Your task to perform on an android device: Search for pizza restaurants on Maps Image 0: 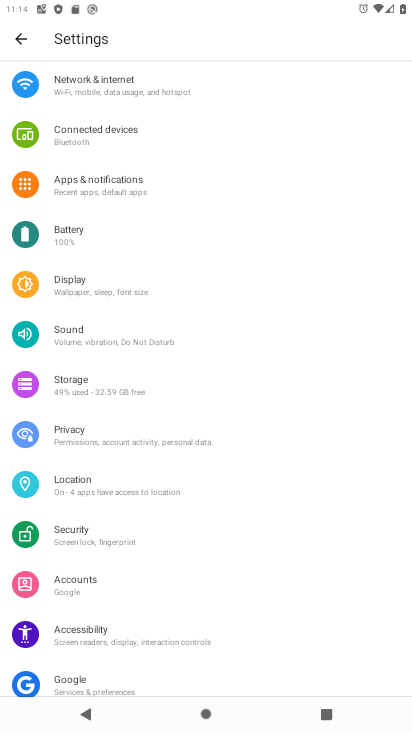
Step 0: press home button
Your task to perform on an android device: Search for pizza restaurants on Maps Image 1: 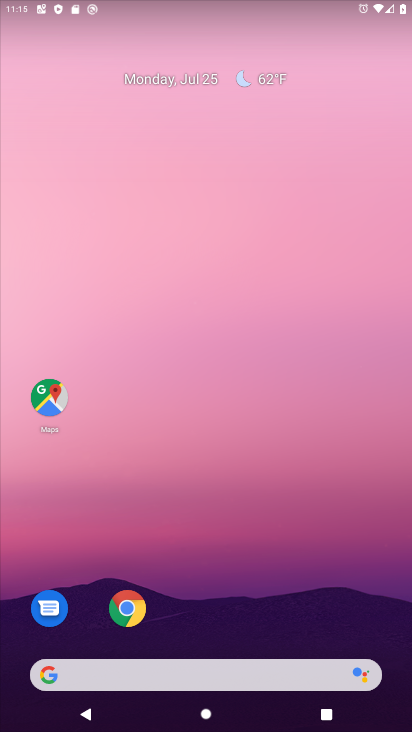
Step 1: click (48, 410)
Your task to perform on an android device: Search for pizza restaurants on Maps Image 2: 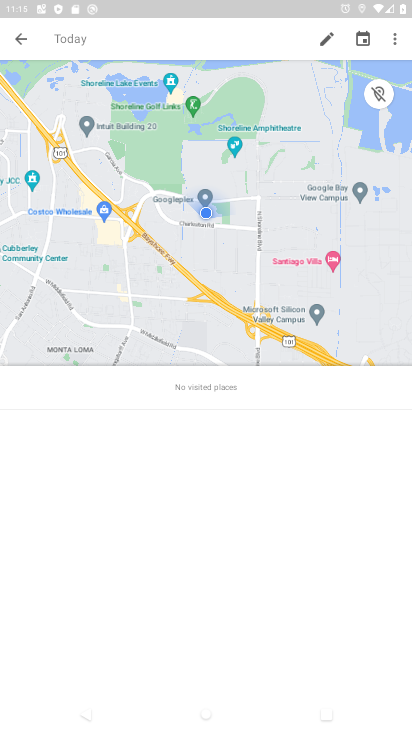
Step 2: click (16, 40)
Your task to perform on an android device: Search for pizza restaurants on Maps Image 3: 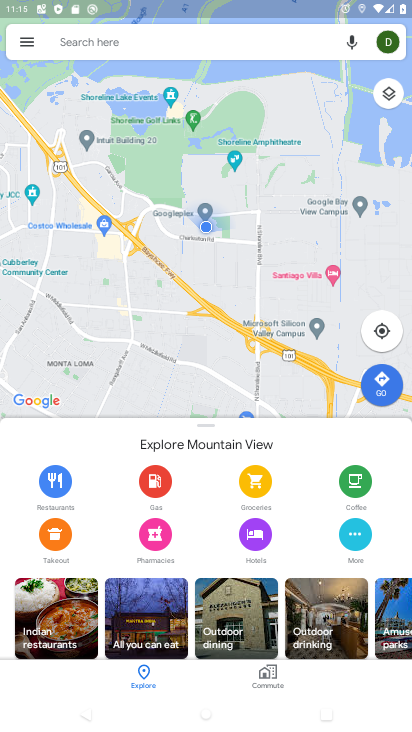
Step 3: click (134, 34)
Your task to perform on an android device: Search for pizza restaurants on Maps Image 4: 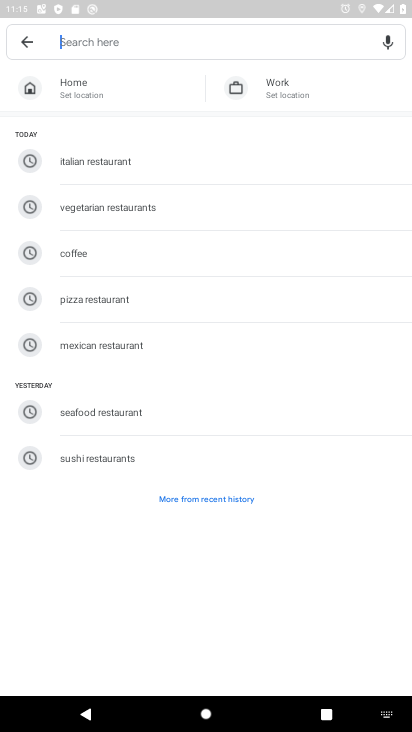
Step 4: type "Pizza restaurants"
Your task to perform on an android device: Search for pizza restaurants on Maps Image 5: 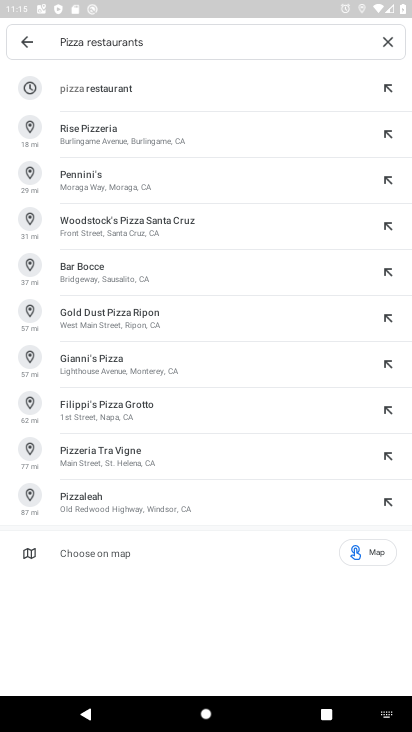
Step 5: click (146, 88)
Your task to perform on an android device: Search for pizza restaurants on Maps Image 6: 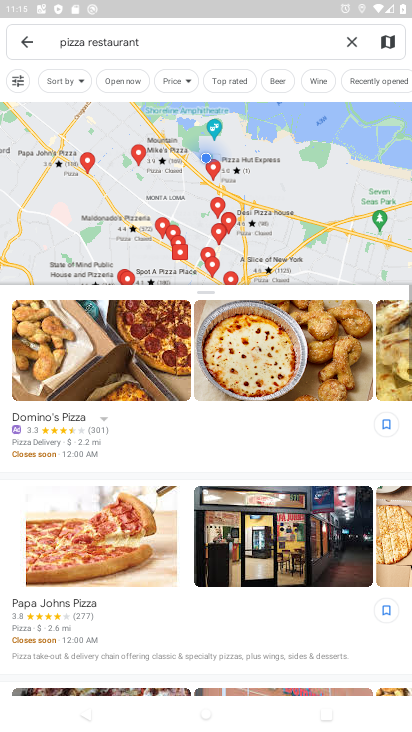
Step 6: task complete